Your task to perform on an android device: see creations saved in the google photos Image 0: 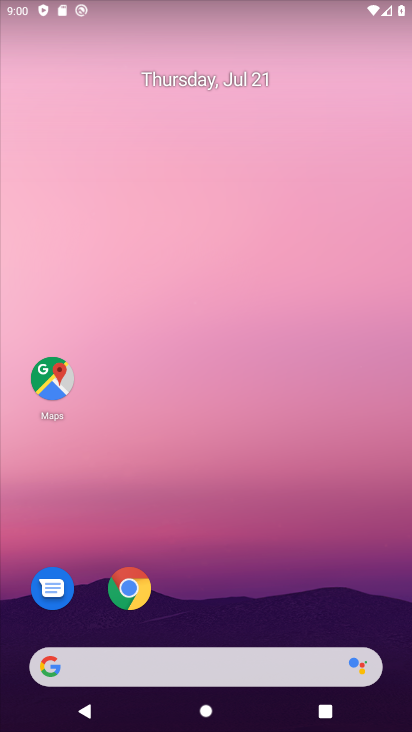
Step 0: drag from (407, 696) to (117, 177)
Your task to perform on an android device: see creations saved in the google photos Image 1: 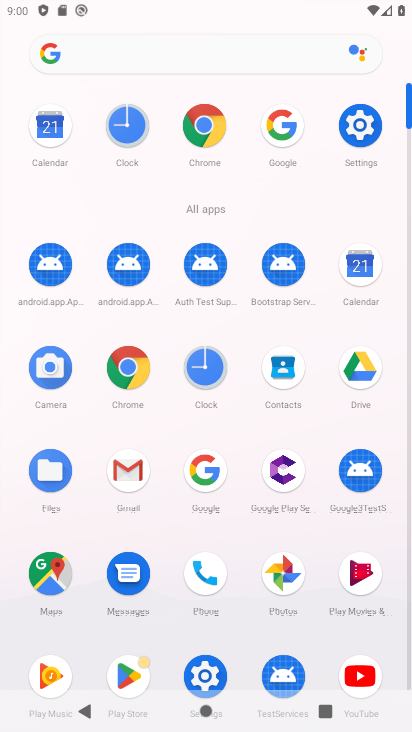
Step 1: click (287, 576)
Your task to perform on an android device: see creations saved in the google photos Image 2: 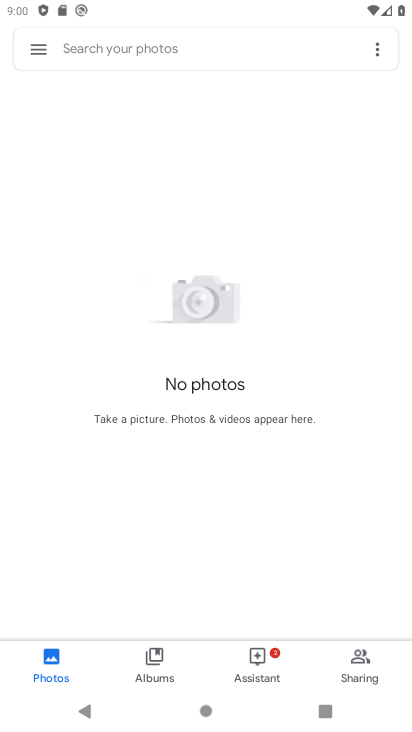
Step 2: task complete